Your task to perform on an android device: Open location settings Image 0: 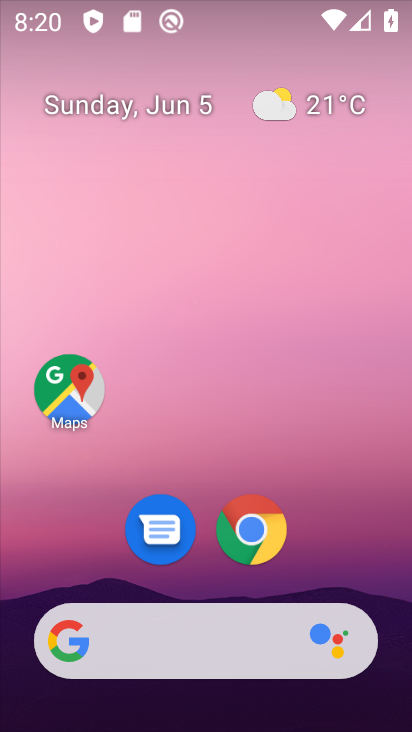
Step 0: click (225, 724)
Your task to perform on an android device: Open location settings Image 1: 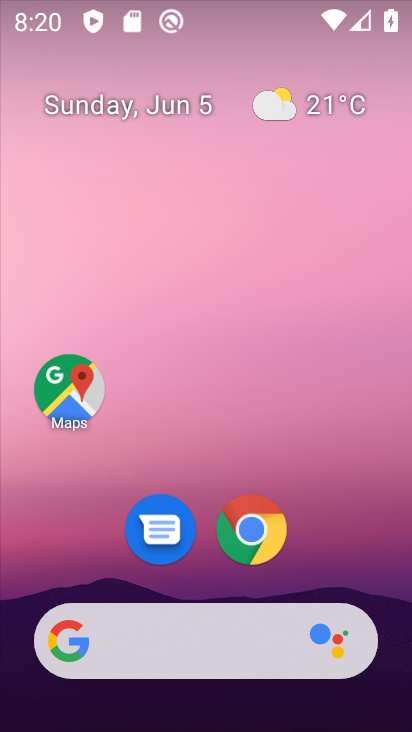
Step 1: drag from (205, 391) to (407, 193)
Your task to perform on an android device: Open location settings Image 2: 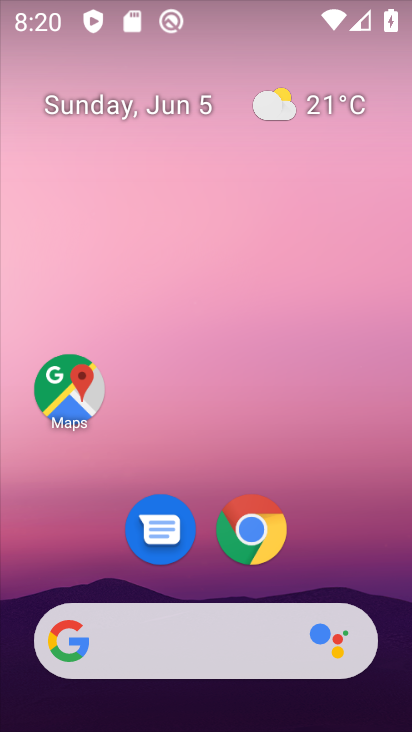
Step 2: drag from (203, 718) to (294, 7)
Your task to perform on an android device: Open location settings Image 3: 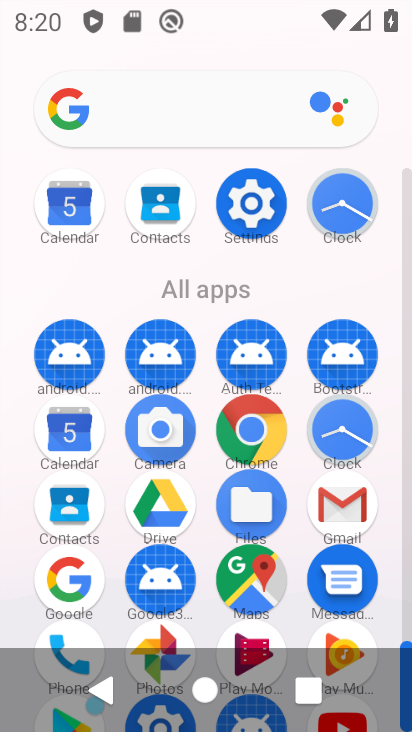
Step 3: click (293, 220)
Your task to perform on an android device: Open location settings Image 4: 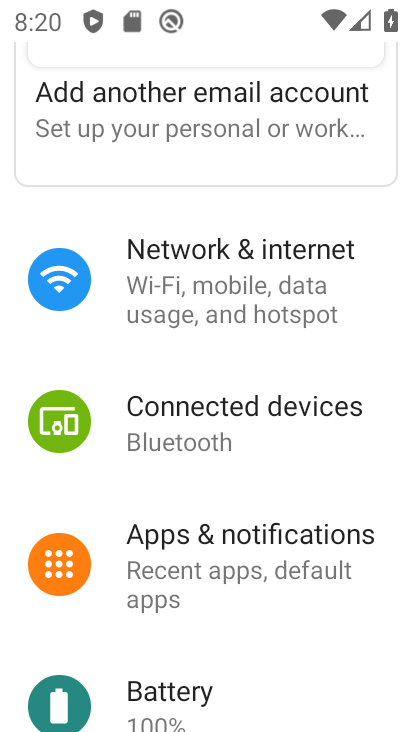
Step 4: drag from (179, 531) to (260, 93)
Your task to perform on an android device: Open location settings Image 5: 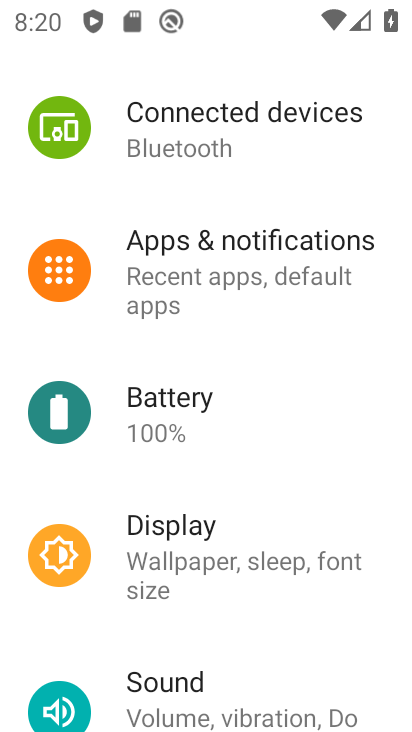
Step 5: drag from (273, 675) to (276, 274)
Your task to perform on an android device: Open location settings Image 6: 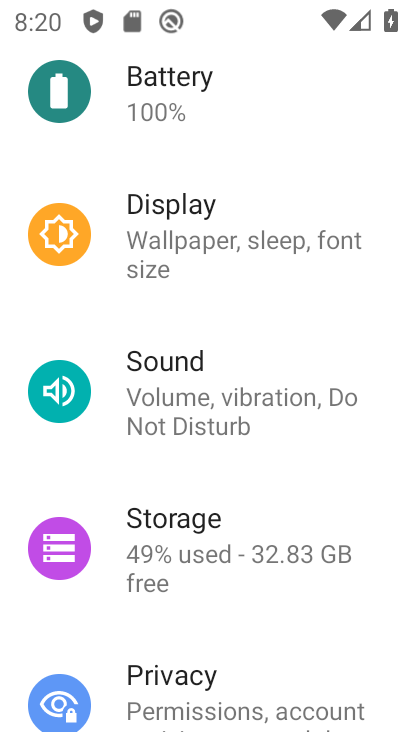
Step 6: drag from (285, 696) to (196, 165)
Your task to perform on an android device: Open location settings Image 7: 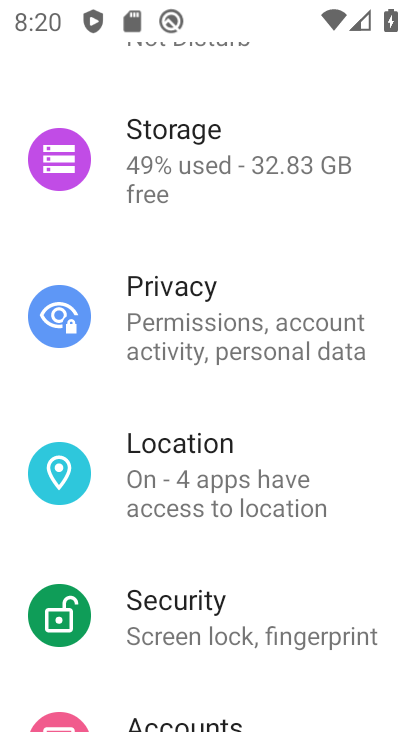
Step 7: click (220, 490)
Your task to perform on an android device: Open location settings Image 8: 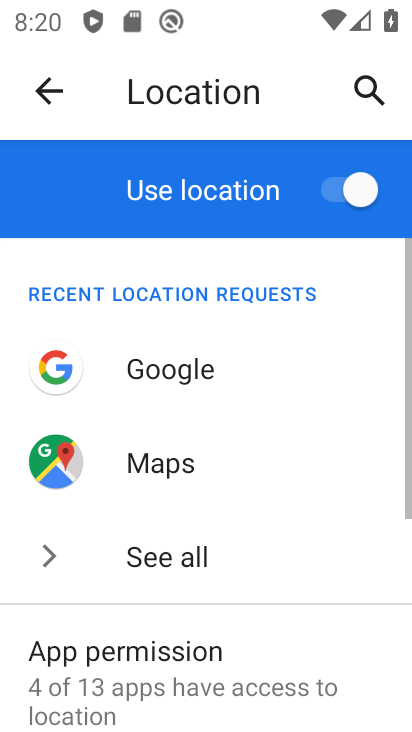
Step 8: task complete